Your task to perform on an android device: open a new tab in the chrome app Image 0: 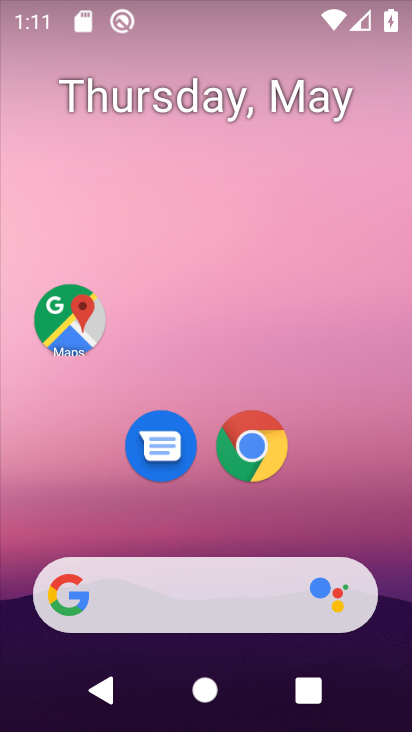
Step 0: click (269, 450)
Your task to perform on an android device: open a new tab in the chrome app Image 1: 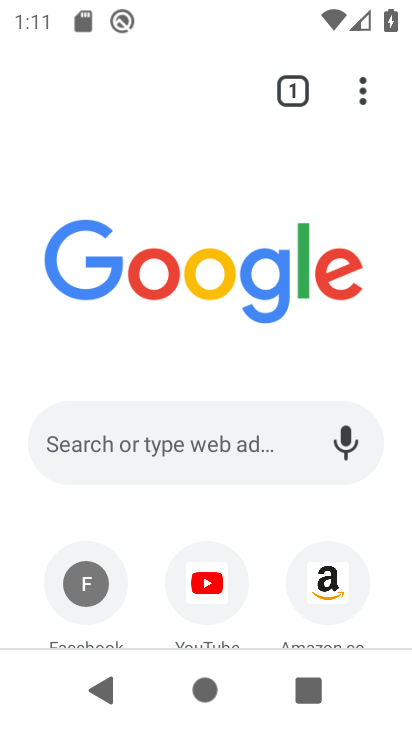
Step 1: click (358, 91)
Your task to perform on an android device: open a new tab in the chrome app Image 2: 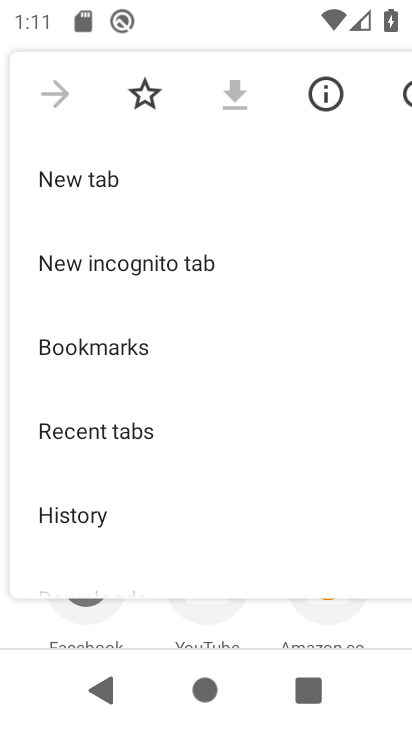
Step 2: click (127, 173)
Your task to perform on an android device: open a new tab in the chrome app Image 3: 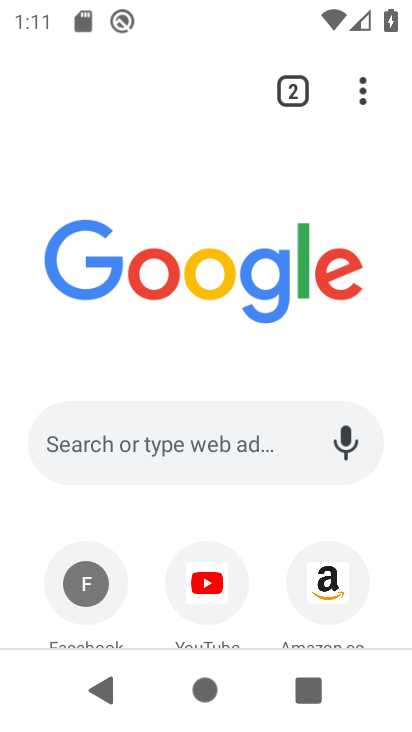
Step 3: task complete